Your task to perform on an android device: Set the phone to "Do not disturb". Image 0: 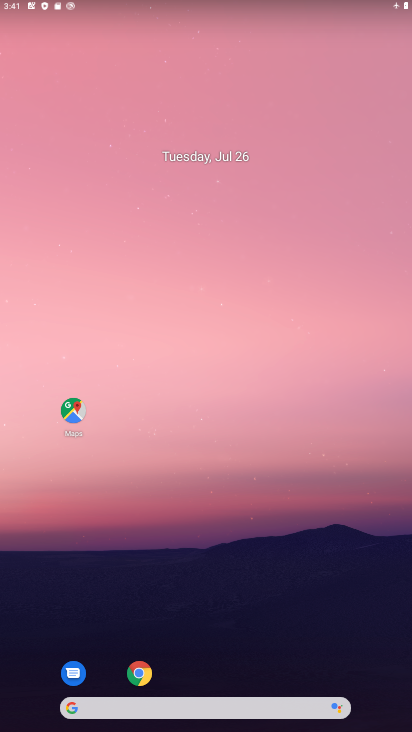
Step 0: drag from (283, 652) to (255, 120)
Your task to perform on an android device: Set the phone to "Do not disturb". Image 1: 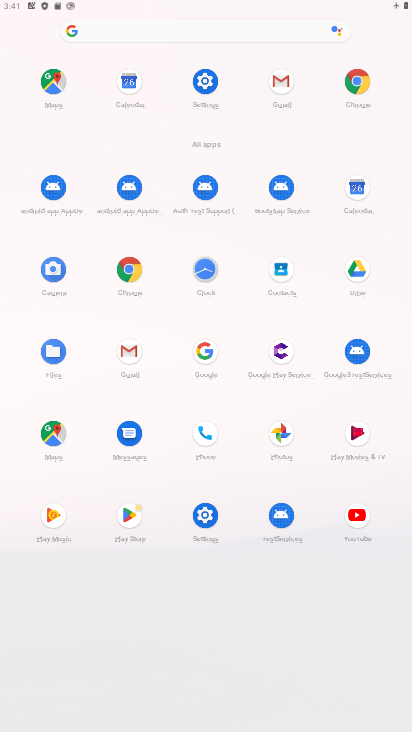
Step 1: click (202, 86)
Your task to perform on an android device: Set the phone to "Do not disturb". Image 2: 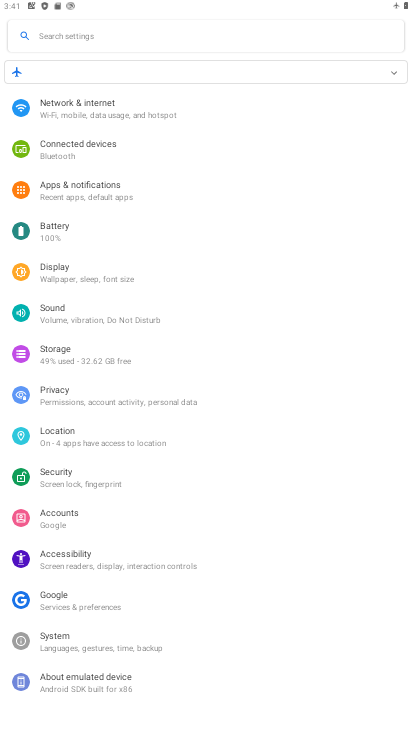
Step 2: click (50, 321)
Your task to perform on an android device: Set the phone to "Do not disturb". Image 3: 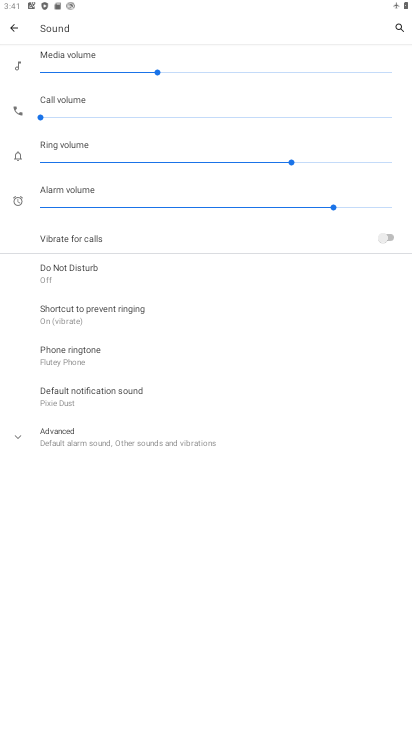
Step 3: click (65, 277)
Your task to perform on an android device: Set the phone to "Do not disturb". Image 4: 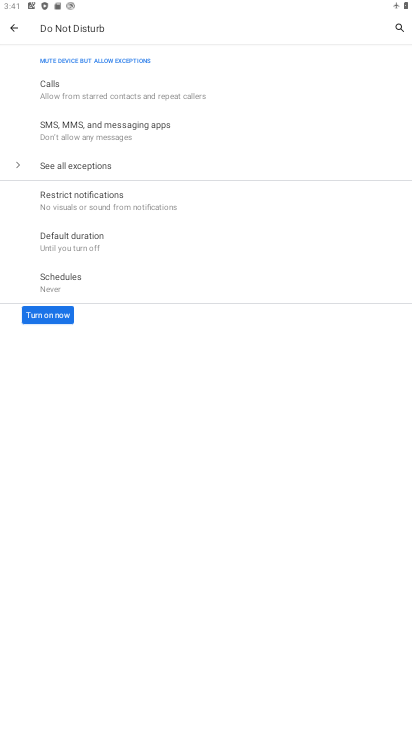
Step 4: click (42, 315)
Your task to perform on an android device: Set the phone to "Do not disturb". Image 5: 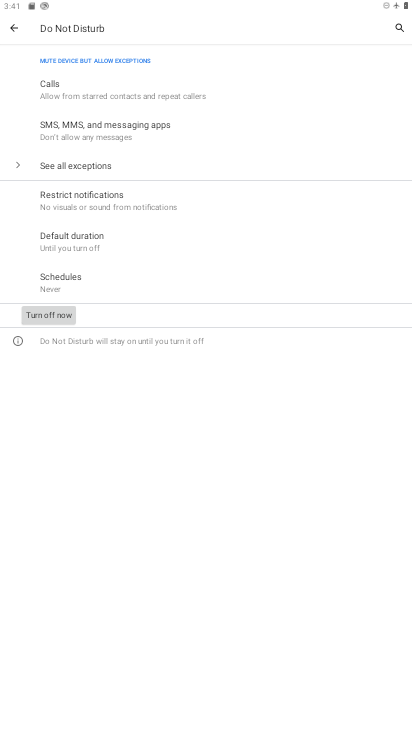
Step 5: task complete